Your task to perform on an android device: toggle airplane mode Image 0: 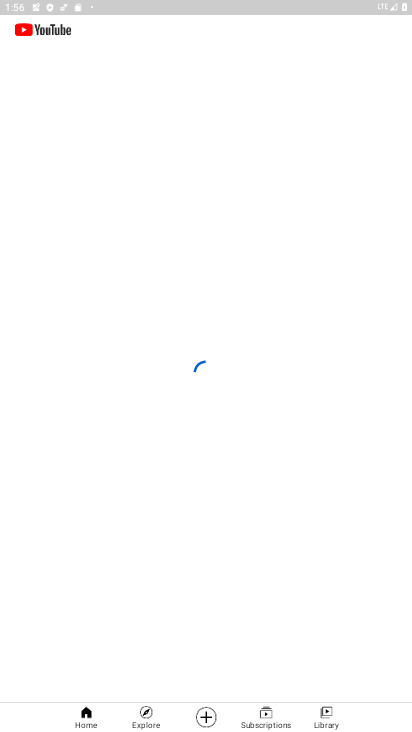
Step 0: press home button
Your task to perform on an android device: toggle airplane mode Image 1: 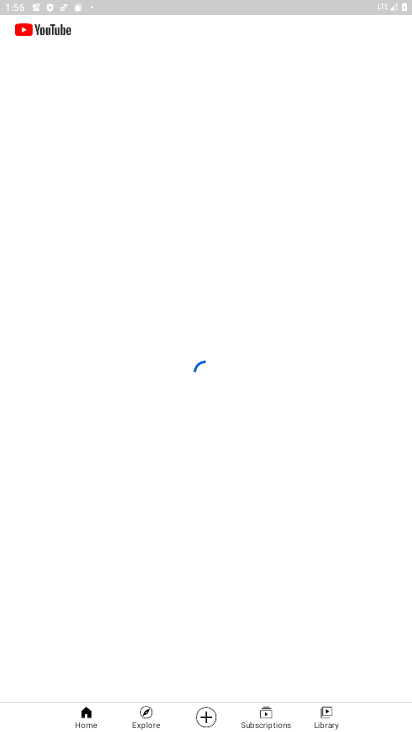
Step 1: click (144, 665)
Your task to perform on an android device: toggle airplane mode Image 2: 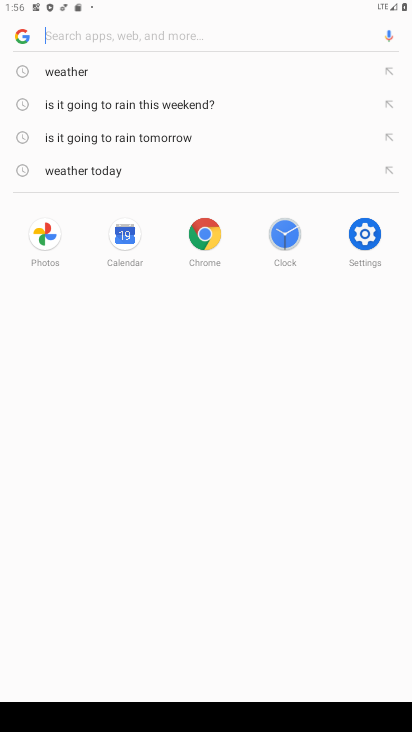
Step 2: press home button
Your task to perform on an android device: toggle airplane mode Image 3: 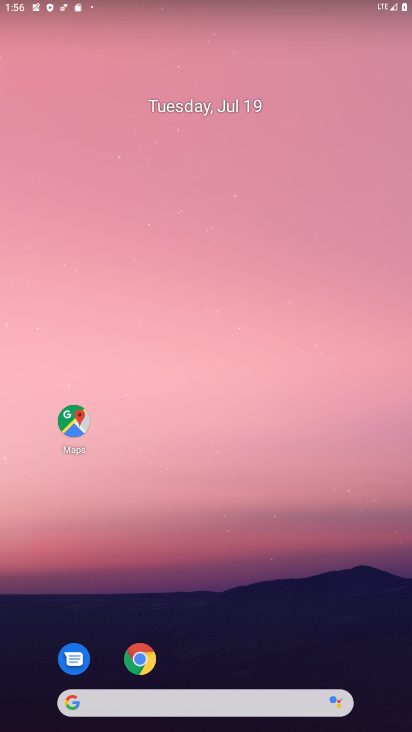
Step 3: drag from (379, 44) to (281, 518)
Your task to perform on an android device: toggle airplane mode Image 4: 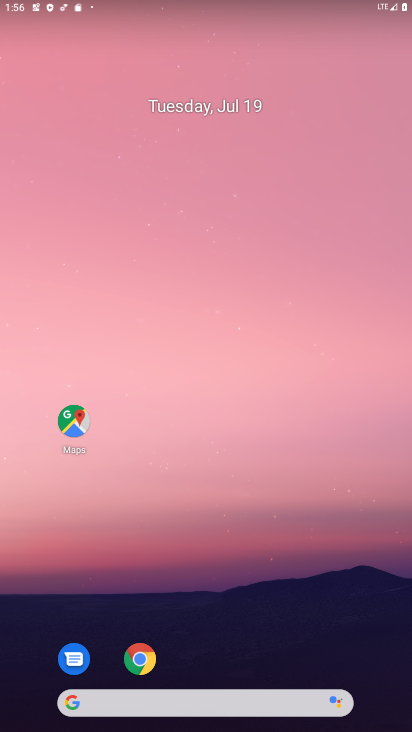
Step 4: drag from (377, 2) to (232, 660)
Your task to perform on an android device: toggle airplane mode Image 5: 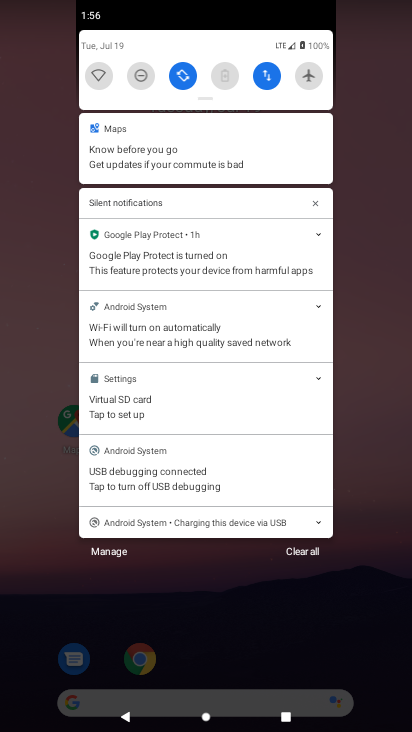
Step 5: click (321, 78)
Your task to perform on an android device: toggle airplane mode Image 6: 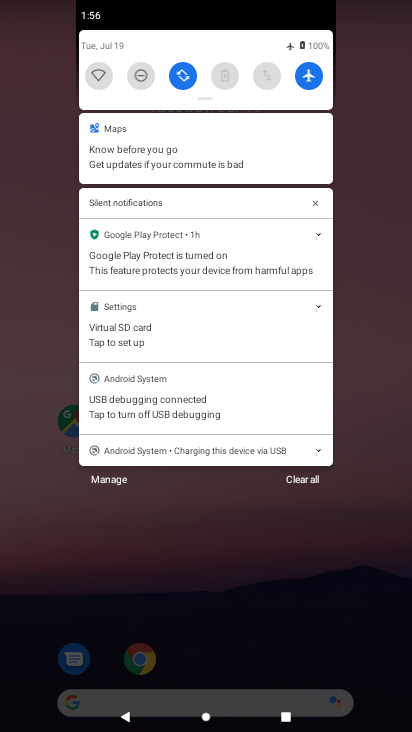
Step 6: task complete